Your task to perform on an android device: choose inbox layout in the gmail app Image 0: 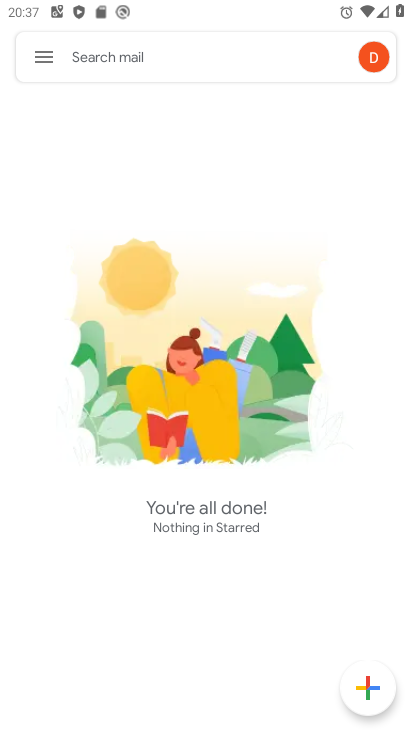
Step 0: click (50, 34)
Your task to perform on an android device: choose inbox layout in the gmail app Image 1: 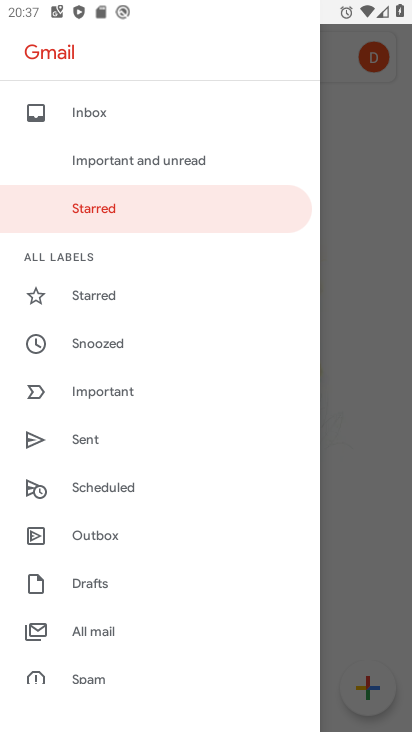
Step 1: drag from (119, 668) to (217, 190)
Your task to perform on an android device: choose inbox layout in the gmail app Image 2: 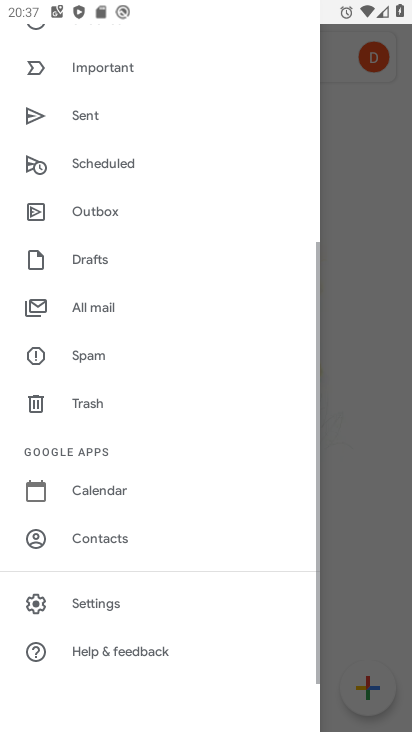
Step 2: click (103, 606)
Your task to perform on an android device: choose inbox layout in the gmail app Image 3: 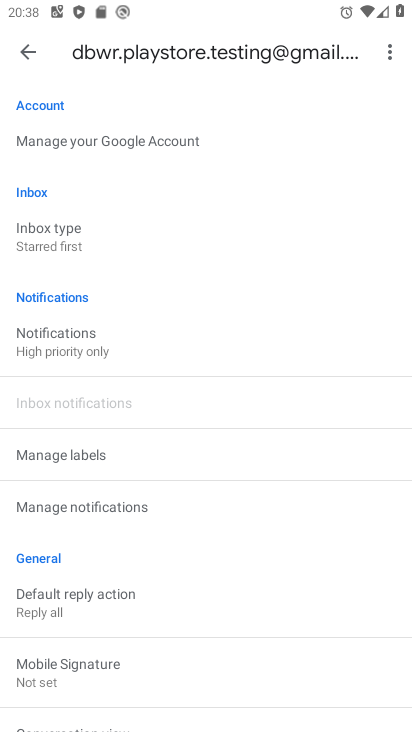
Step 3: click (96, 251)
Your task to perform on an android device: choose inbox layout in the gmail app Image 4: 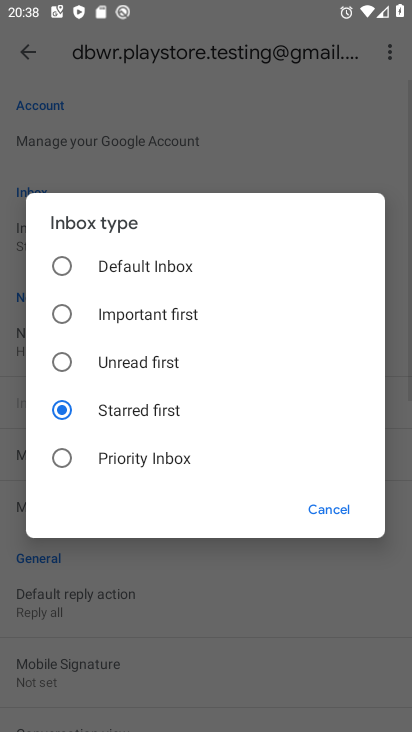
Step 4: click (185, 319)
Your task to perform on an android device: choose inbox layout in the gmail app Image 5: 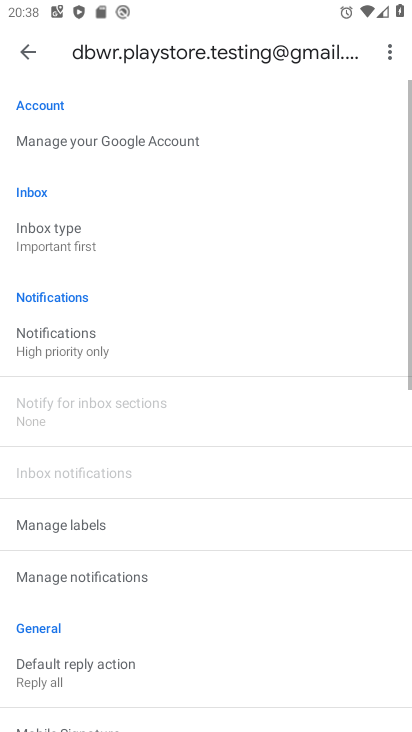
Step 5: task complete